Your task to perform on an android device: manage bookmarks in the chrome app Image 0: 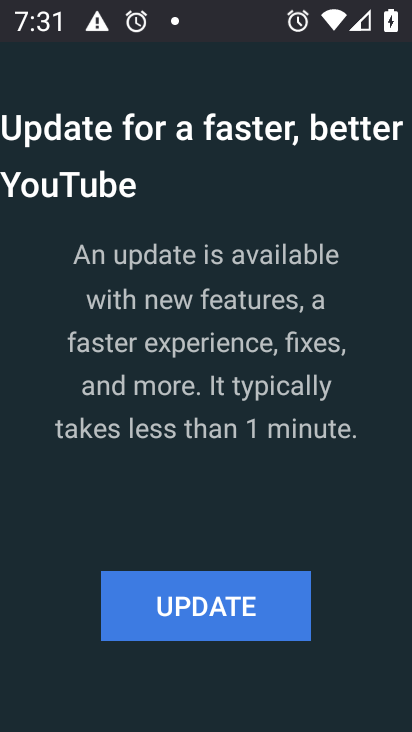
Step 0: press home button
Your task to perform on an android device: manage bookmarks in the chrome app Image 1: 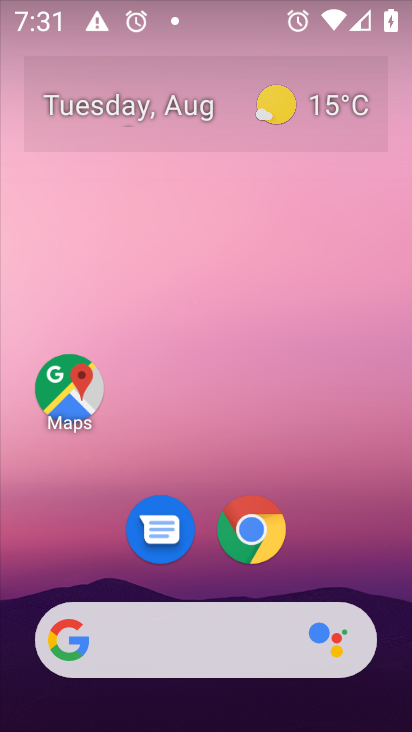
Step 1: click (246, 532)
Your task to perform on an android device: manage bookmarks in the chrome app Image 2: 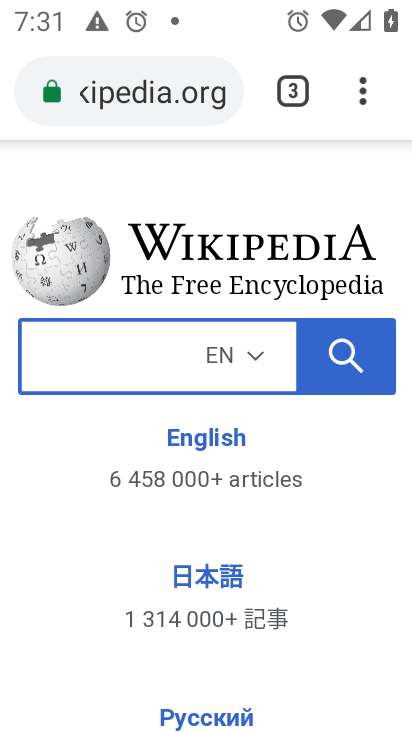
Step 2: drag from (366, 94) to (64, 470)
Your task to perform on an android device: manage bookmarks in the chrome app Image 3: 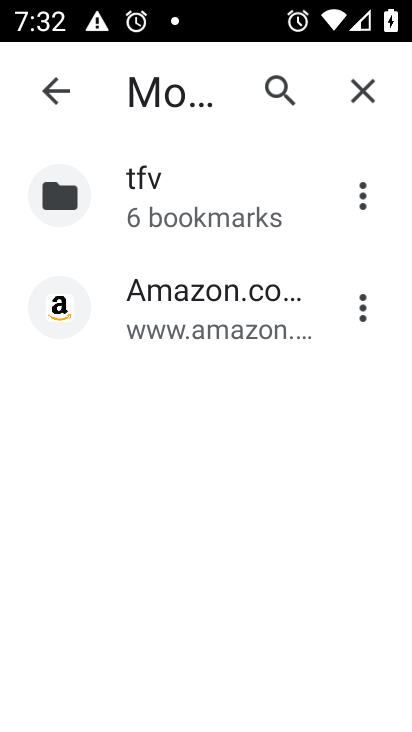
Step 3: click (366, 198)
Your task to perform on an android device: manage bookmarks in the chrome app Image 4: 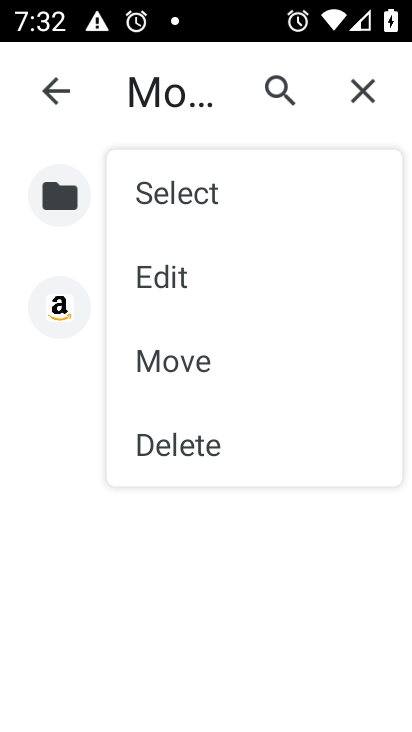
Step 4: click (151, 281)
Your task to perform on an android device: manage bookmarks in the chrome app Image 5: 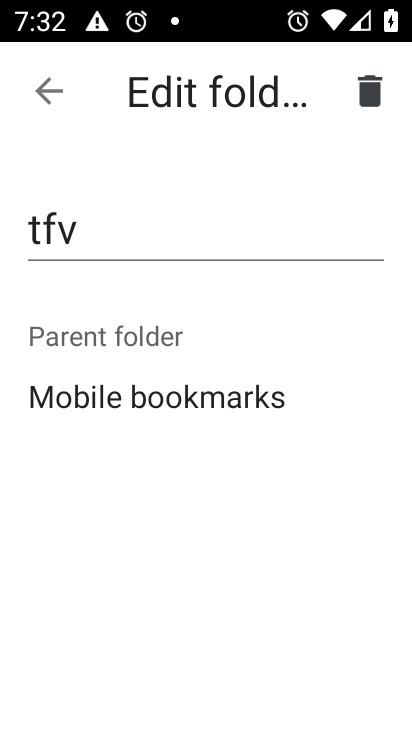
Step 5: task complete